Your task to perform on an android device: Go to location settings Image 0: 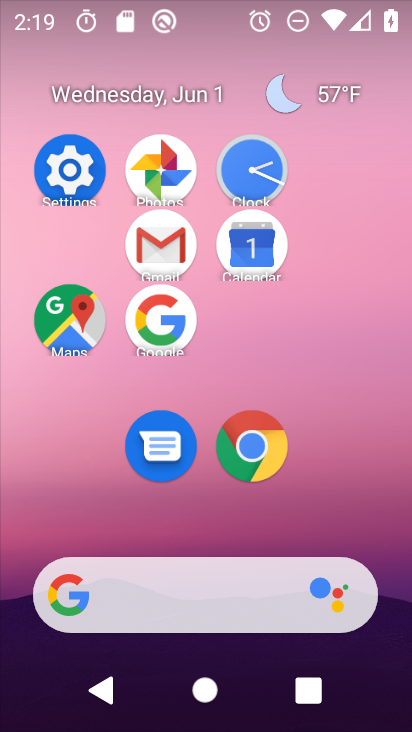
Step 0: click (71, 153)
Your task to perform on an android device: Go to location settings Image 1: 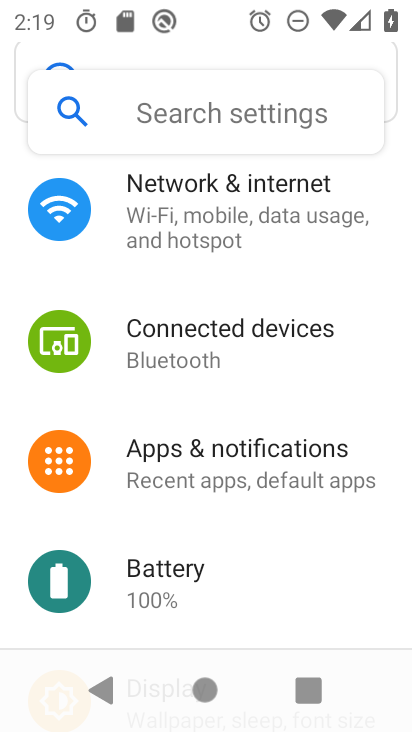
Step 1: drag from (298, 557) to (266, 194)
Your task to perform on an android device: Go to location settings Image 2: 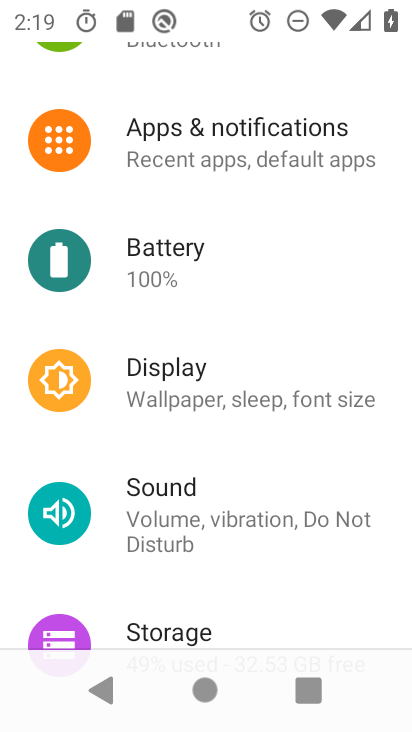
Step 2: drag from (260, 546) to (265, 114)
Your task to perform on an android device: Go to location settings Image 3: 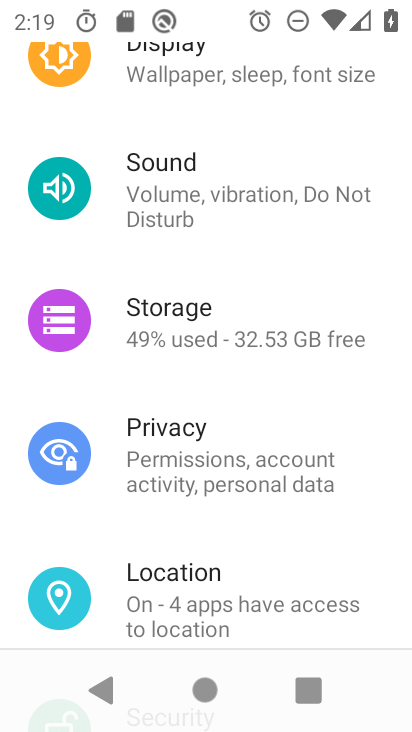
Step 3: click (175, 575)
Your task to perform on an android device: Go to location settings Image 4: 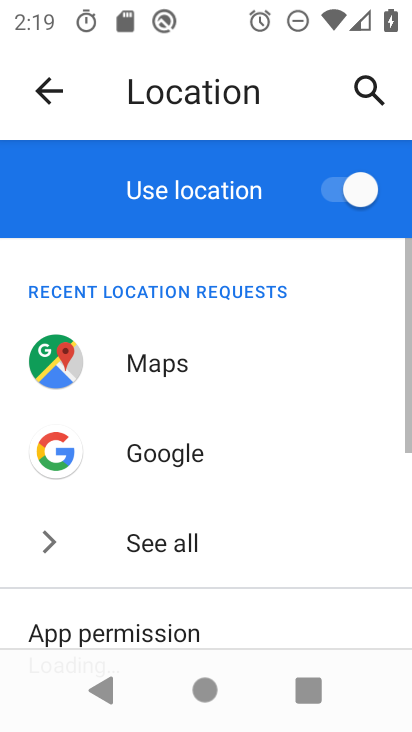
Step 4: task complete